Your task to perform on an android device: Go to Amazon Image 0: 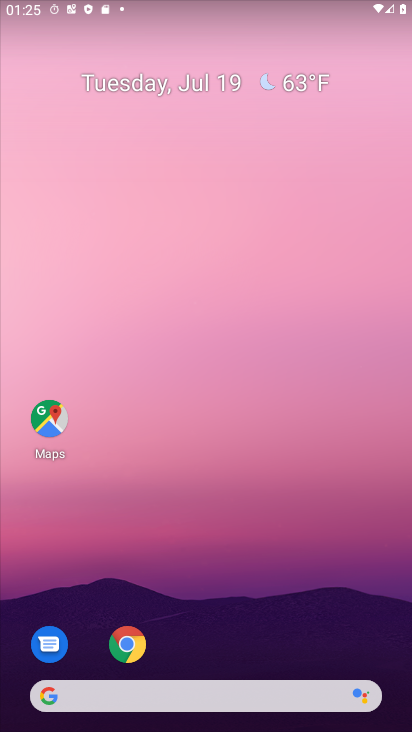
Step 0: drag from (193, 704) to (193, 335)
Your task to perform on an android device: Go to Amazon Image 1: 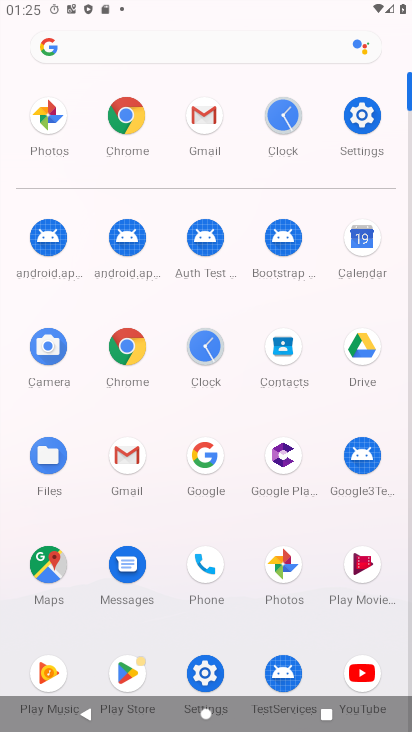
Step 1: click (130, 351)
Your task to perform on an android device: Go to Amazon Image 2: 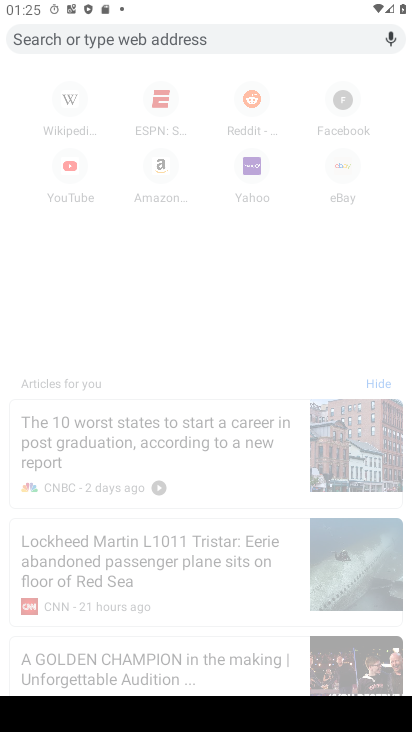
Step 2: click (162, 320)
Your task to perform on an android device: Go to Amazon Image 3: 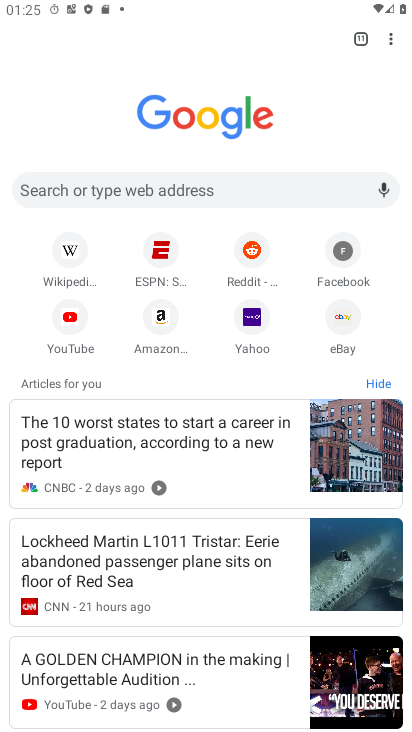
Step 3: click (263, 292)
Your task to perform on an android device: Go to Amazon Image 4: 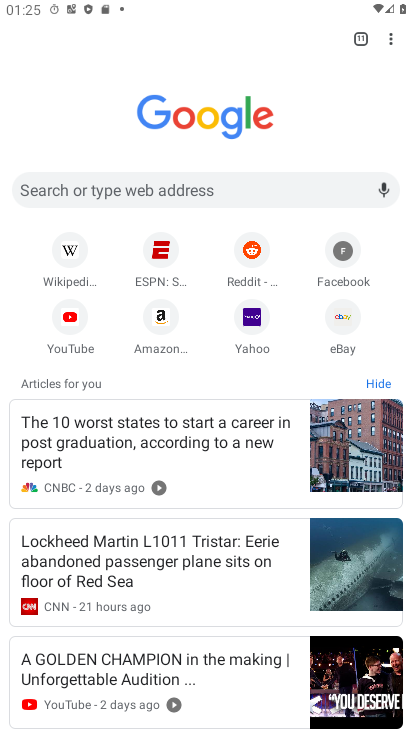
Step 4: click (157, 319)
Your task to perform on an android device: Go to Amazon Image 5: 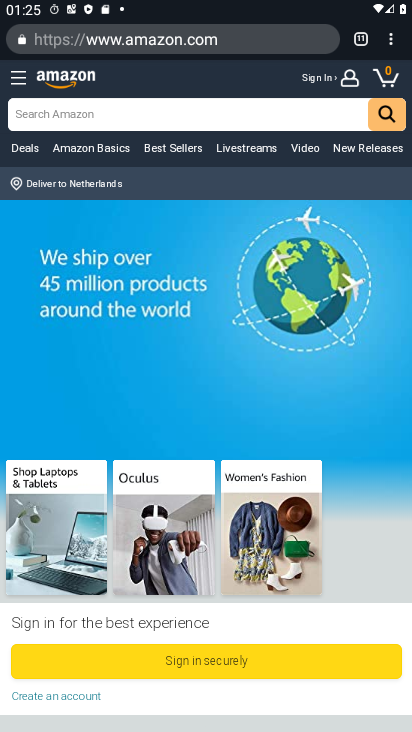
Step 5: task complete